Your task to perform on an android device: turn on notifications settings in the gmail app Image 0: 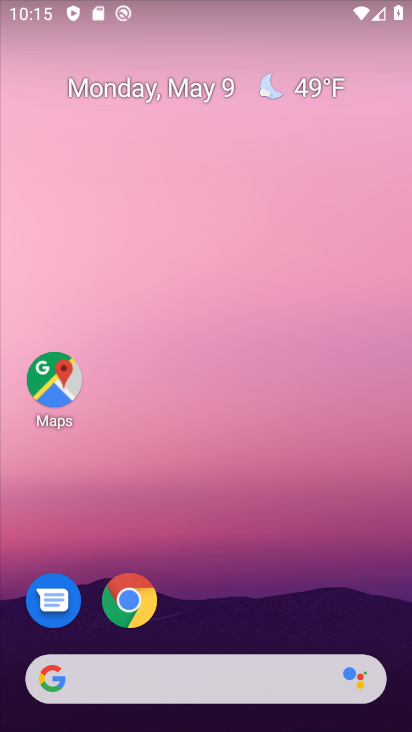
Step 0: drag from (351, 592) to (308, 149)
Your task to perform on an android device: turn on notifications settings in the gmail app Image 1: 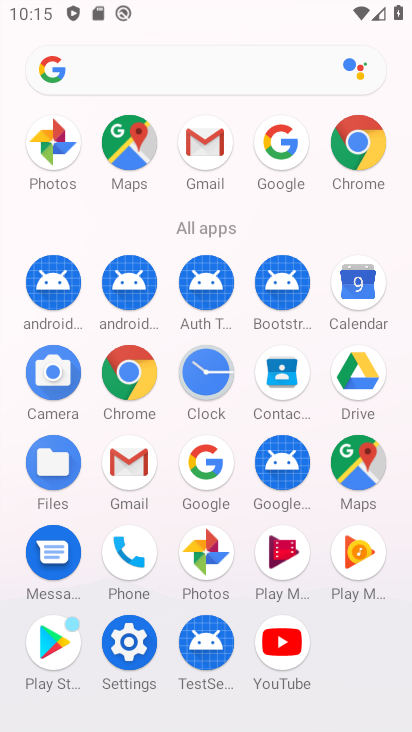
Step 1: click (133, 467)
Your task to perform on an android device: turn on notifications settings in the gmail app Image 2: 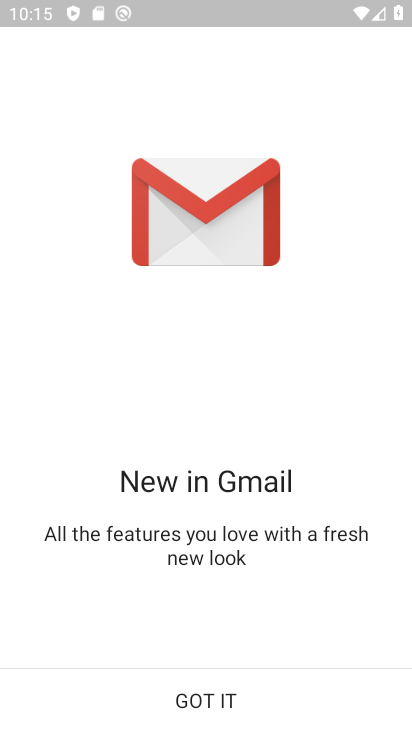
Step 2: click (195, 698)
Your task to perform on an android device: turn on notifications settings in the gmail app Image 3: 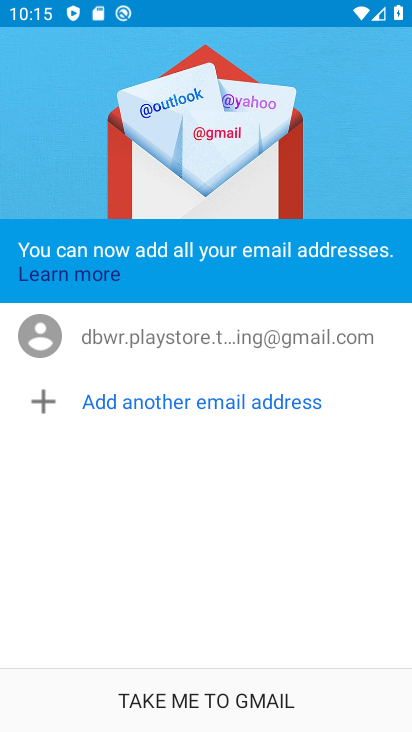
Step 3: click (215, 697)
Your task to perform on an android device: turn on notifications settings in the gmail app Image 4: 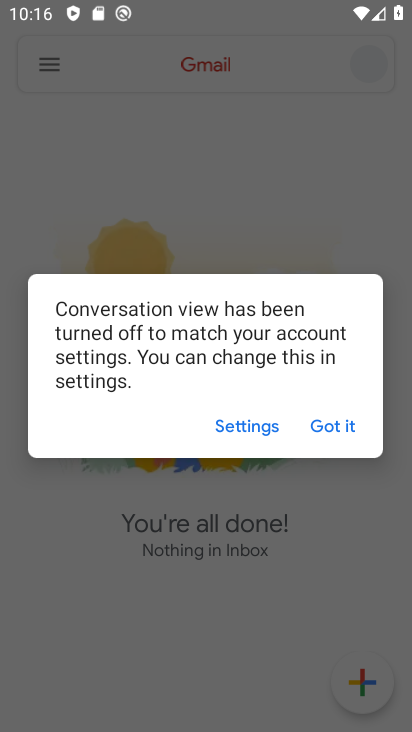
Step 4: click (337, 421)
Your task to perform on an android device: turn on notifications settings in the gmail app Image 5: 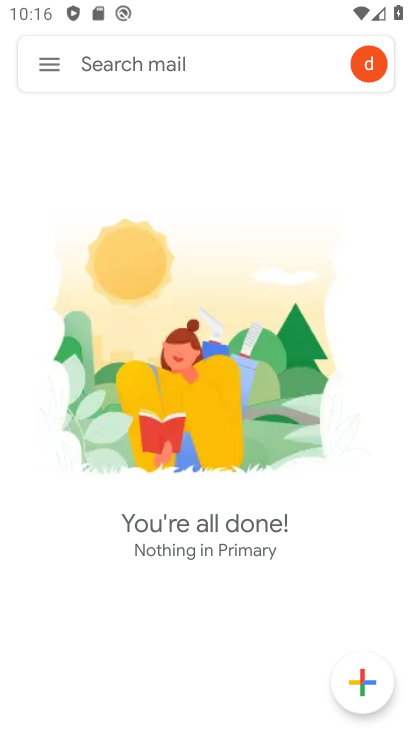
Step 5: click (44, 63)
Your task to perform on an android device: turn on notifications settings in the gmail app Image 6: 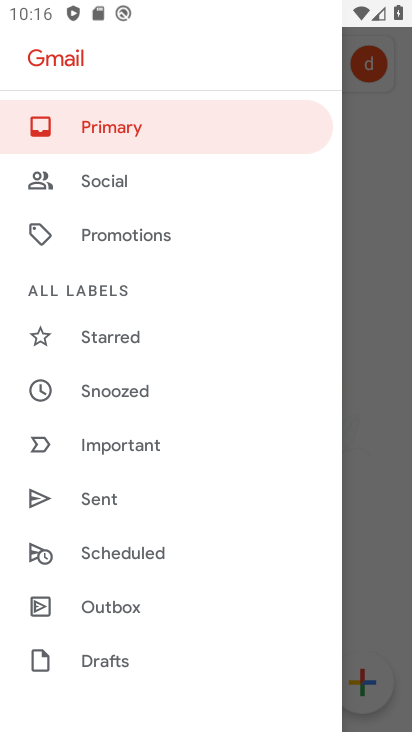
Step 6: drag from (172, 635) to (180, 301)
Your task to perform on an android device: turn on notifications settings in the gmail app Image 7: 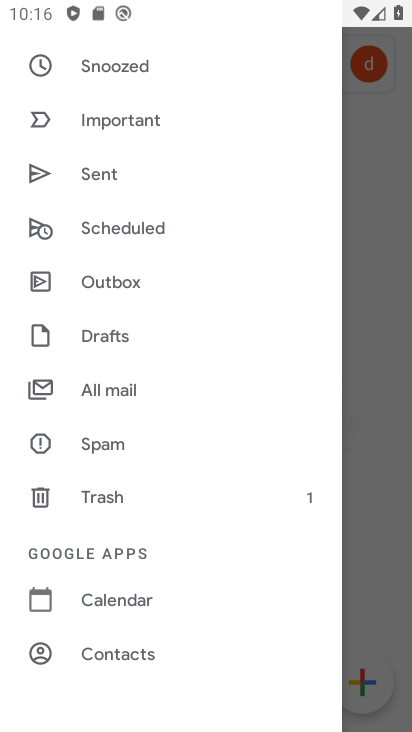
Step 7: drag from (184, 642) to (219, 284)
Your task to perform on an android device: turn on notifications settings in the gmail app Image 8: 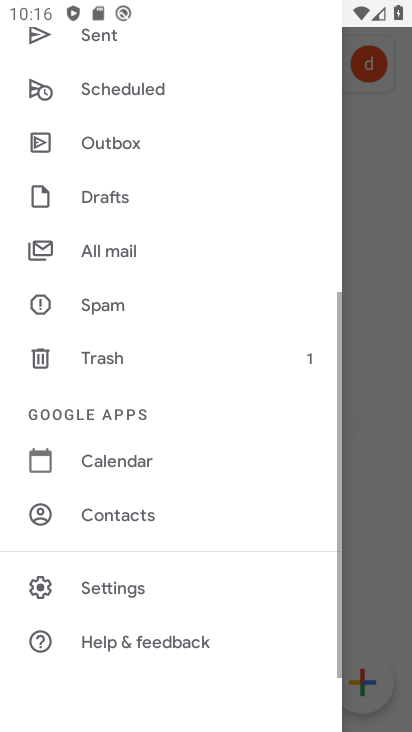
Step 8: click (152, 584)
Your task to perform on an android device: turn on notifications settings in the gmail app Image 9: 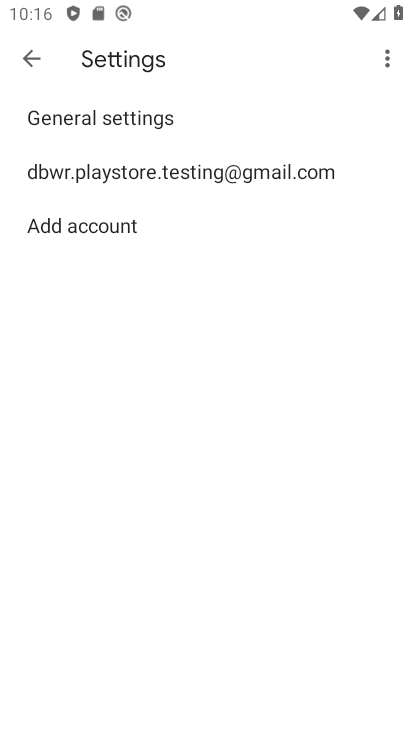
Step 9: click (175, 165)
Your task to perform on an android device: turn on notifications settings in the gmail app Image 10: 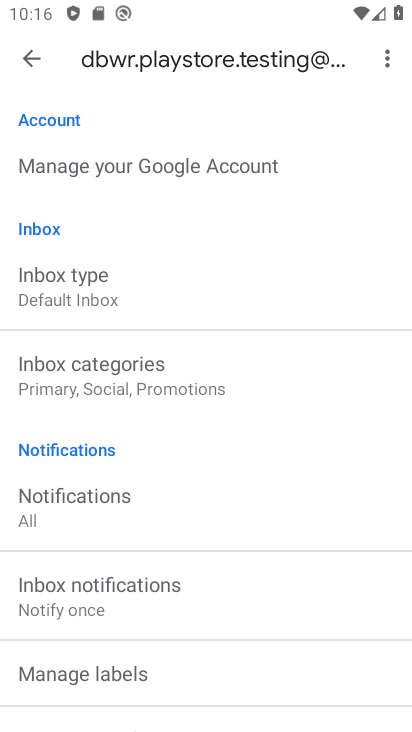
Step 10: click (95, 503)
Your task to perform on an android device: turn on notifications settings in the gmail app Image 11: 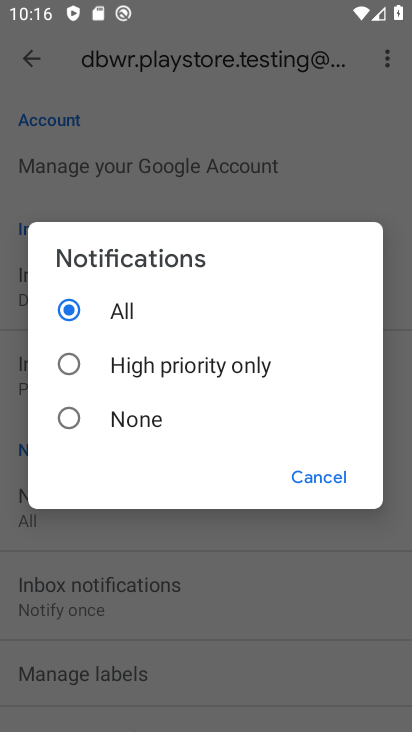
Step 11: task complete